Your task to perform on an android device: Clear the shopping cart on costco. Search for jbl charge 4 on costco, select the first entry, and add it to the cart. Image 0: 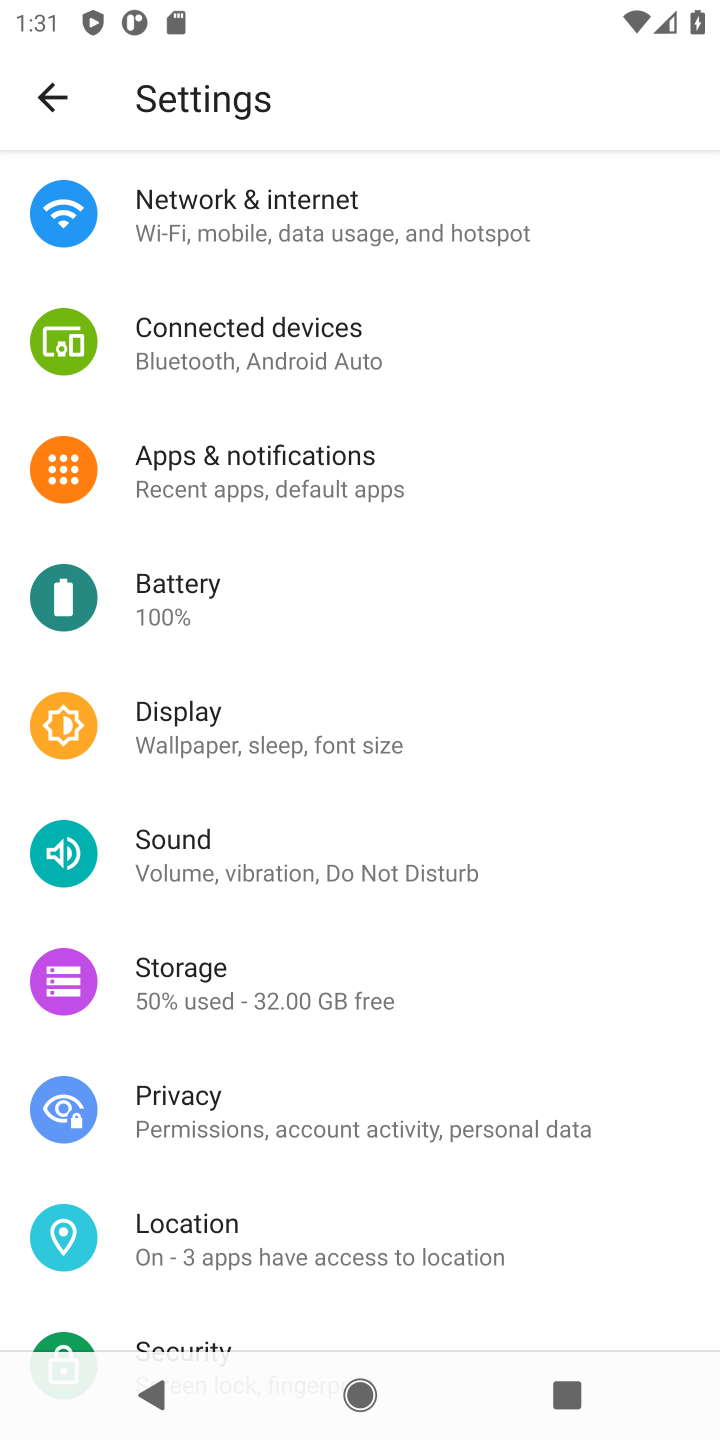
Step 0: press home button
Your task to perform on an android device: Clear the shopping cart on costco. Search for jbl charge 4 on costco, select the first entry, and add it to the cart. Image 1: 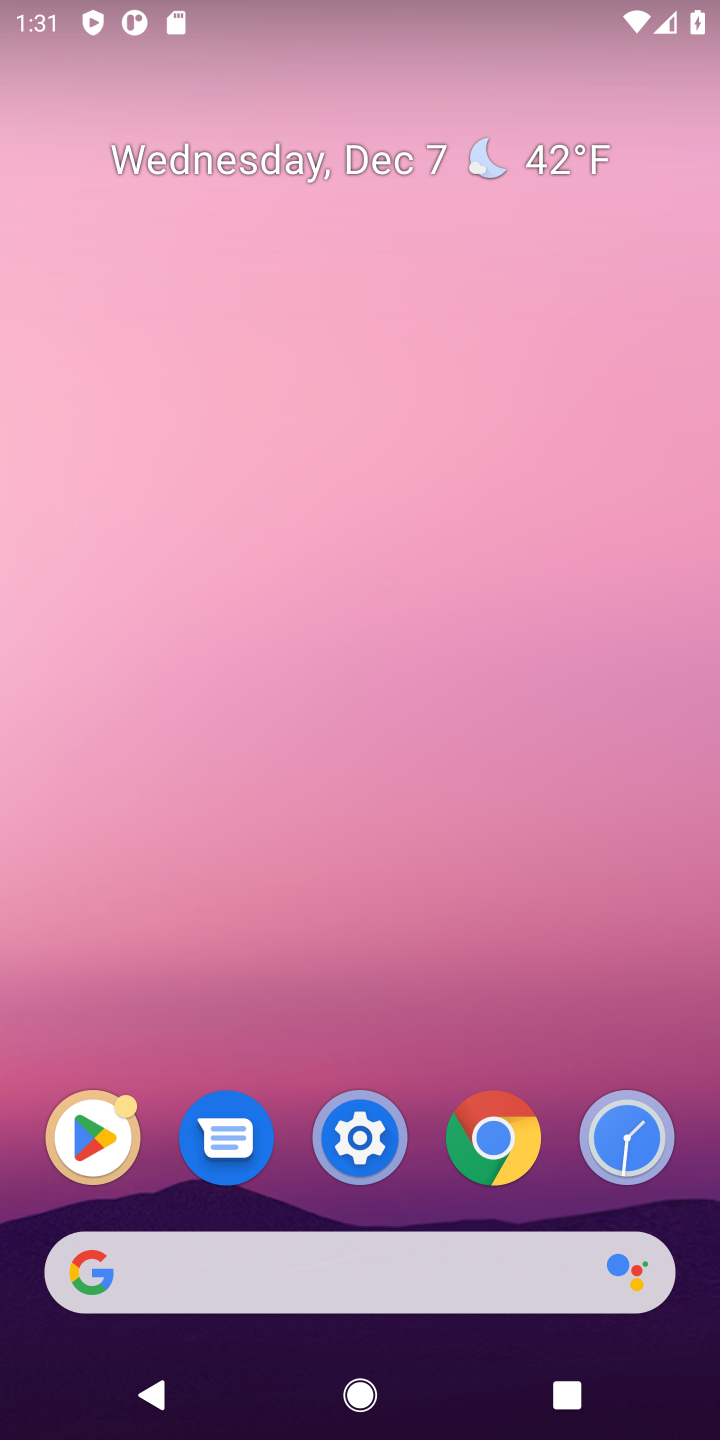
Step 1: click (425, 1267)
Your task to perform on an android device: Clear the shopping cart on costco. Search for jbl charge 4 on costco, select the first entry, and add it to the cart. Image 2: 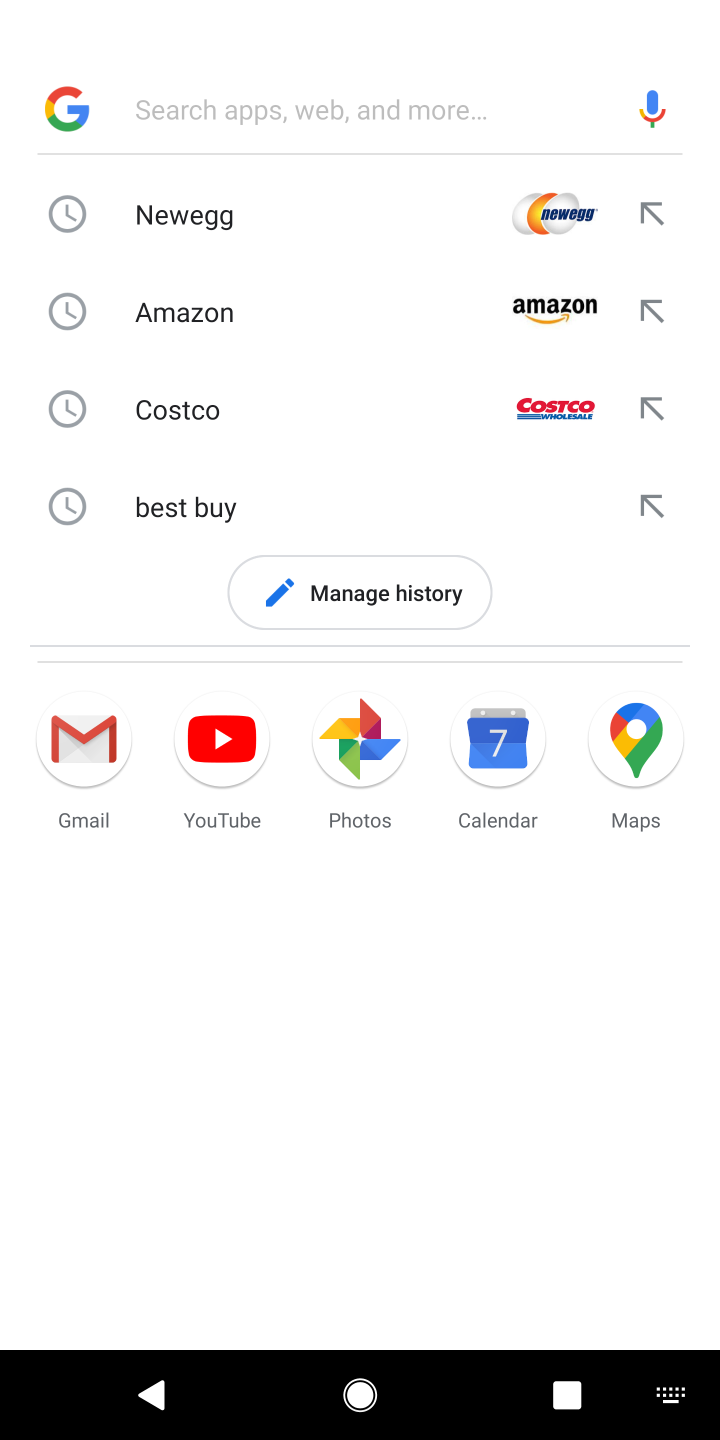
Step 2: type "cotco"
Your task to perform on an android device: Clear the shopping cart on costco. Search for jbl charge 4 on costco, select the first entry, and add it to the cart. Image 3: 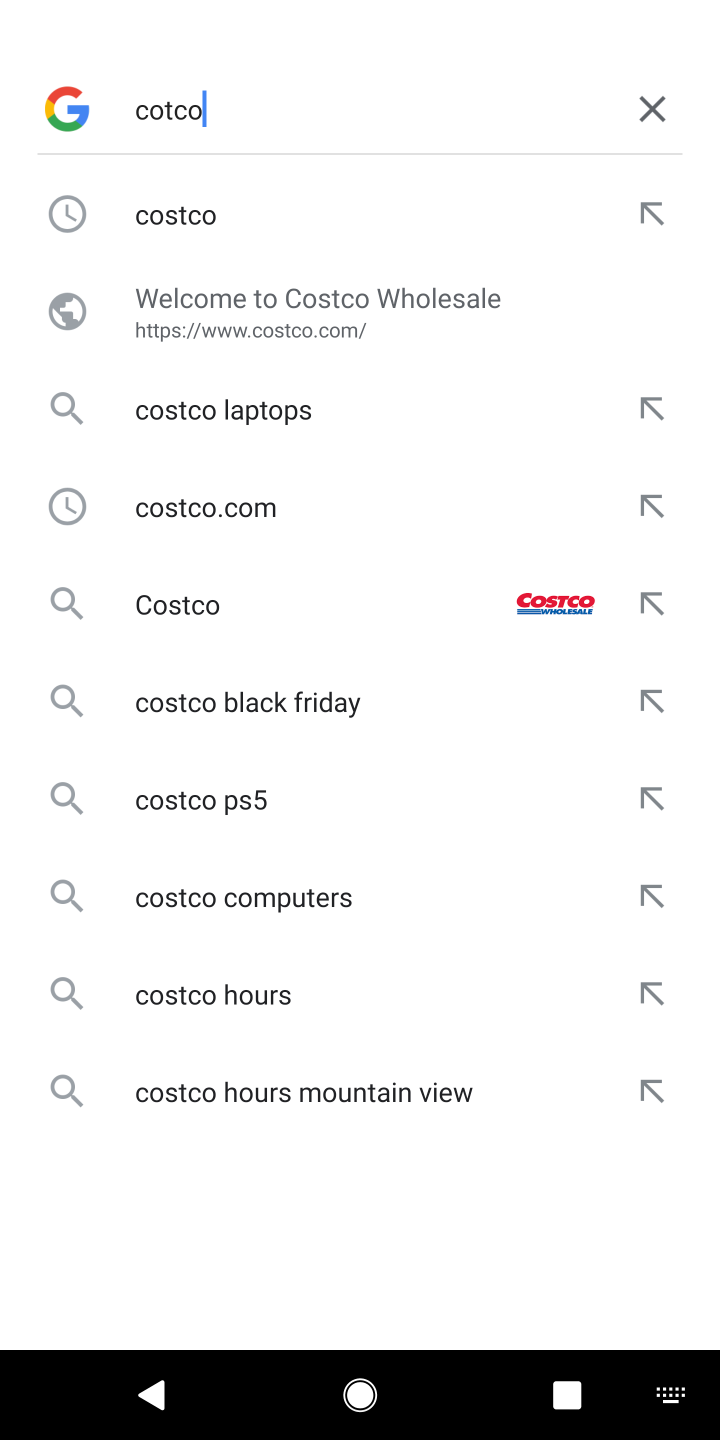
Step 3: click (184, 625)
Your task to perform on an android device: Clear the shopping cart on costco. Search for jbl charge 4 on costco, select the first entry, and add it to the cart. Image 4: 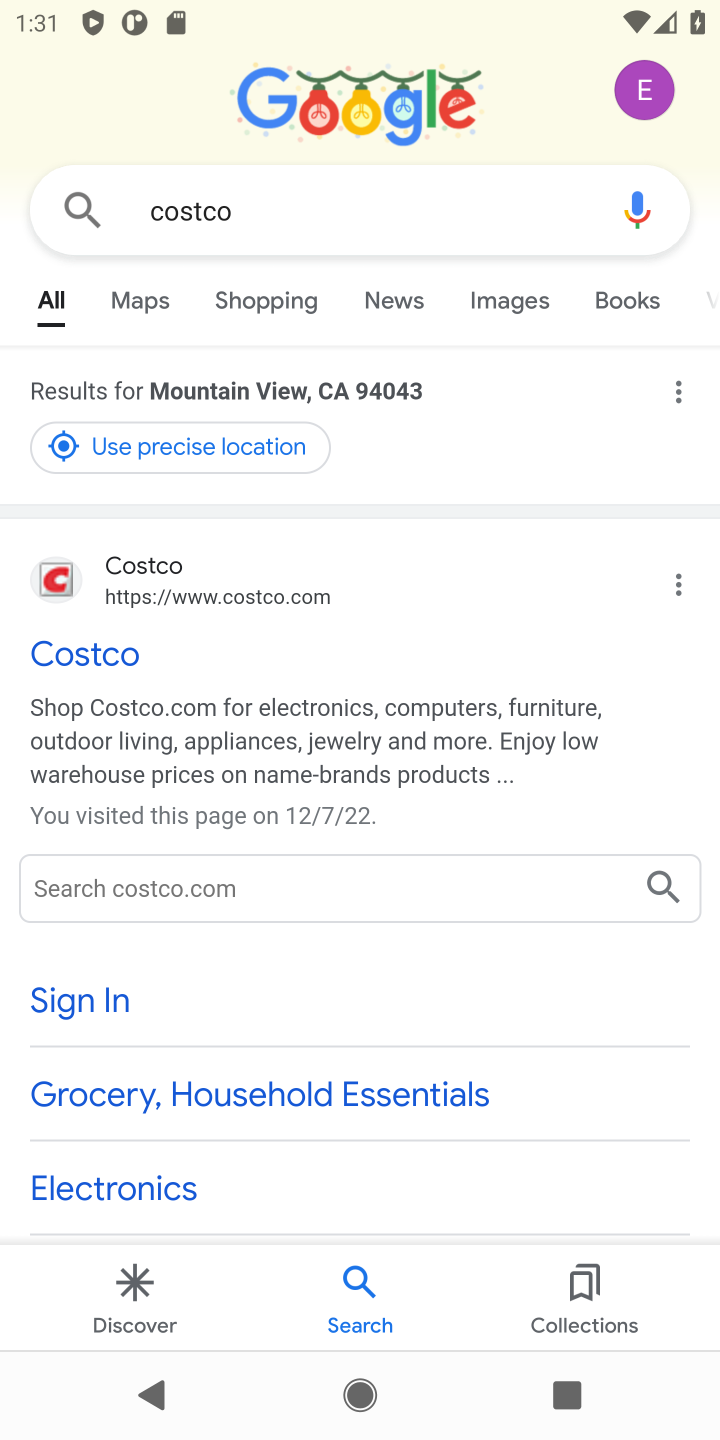
Step 4: click (53, 663)
Your task to perform on an android device: Clear the shopping cart on costco. Search for jbl charge 4 on costco, select the first entry, and add it to the cart. Image 5: 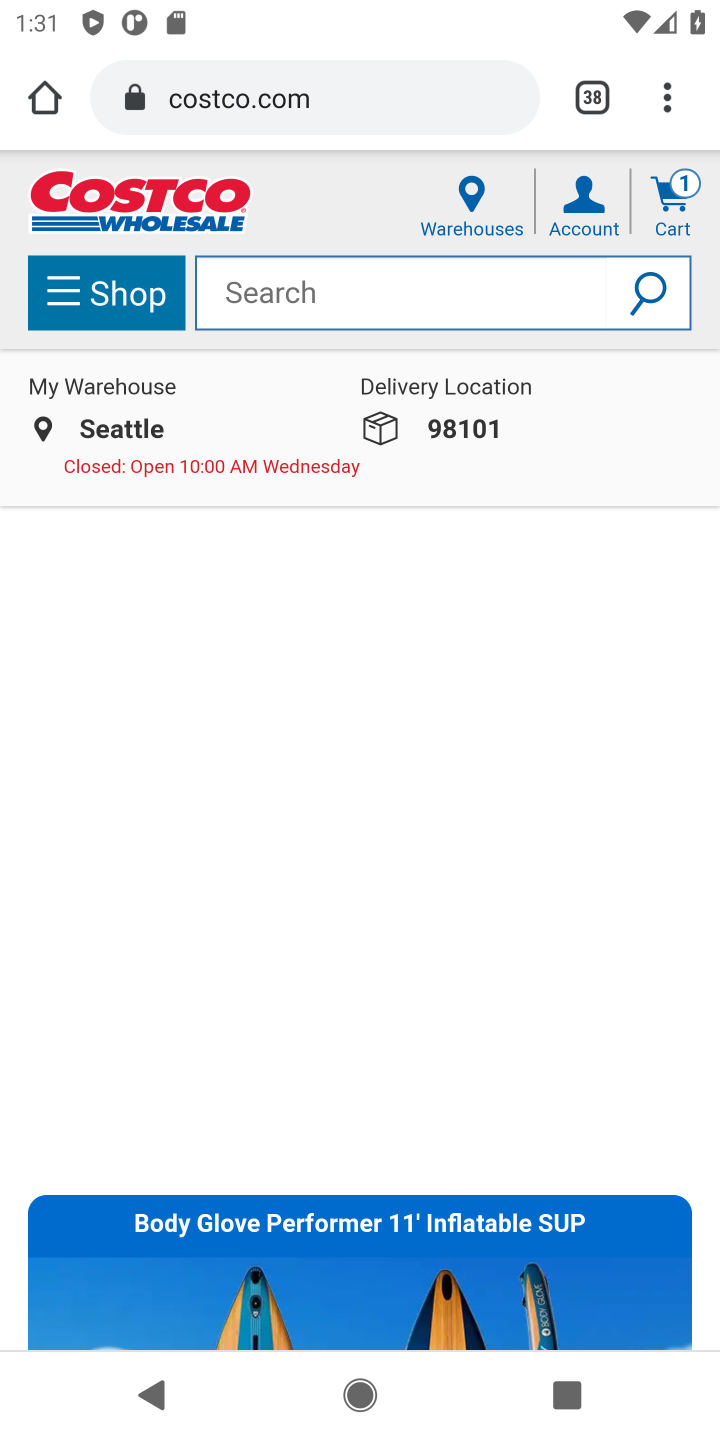
Step 5: click (346, 312)
Your task to perform on an android device: Clear the shopping cart on costco. Search for jbl charge 4 on costco, select the first entry, and add it to the cart. Image 6: 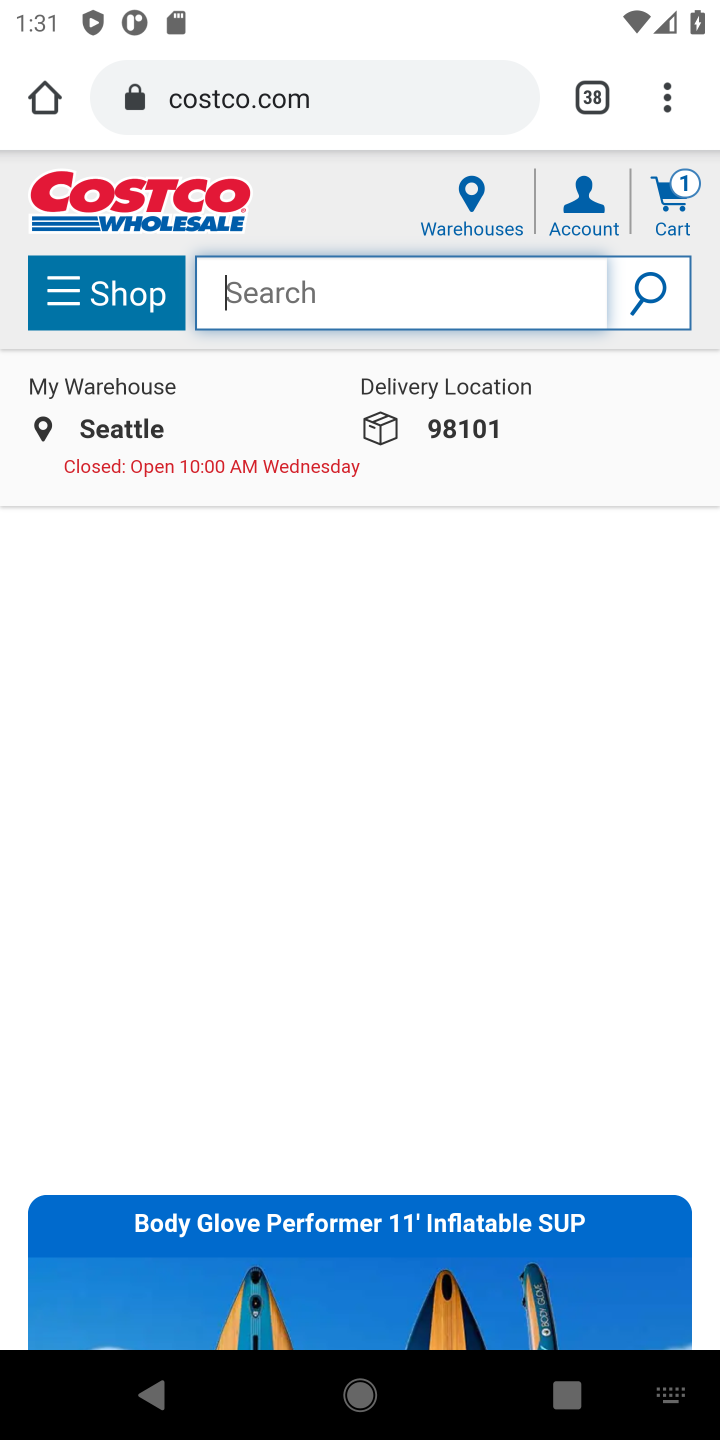
Step 6: type "jbl charge 4"
Your task to perform on an android device: Clear the shopping cart on costco. Search for jbl charge 4 on costco, select the first entry, and add it to the cart. Image 7: 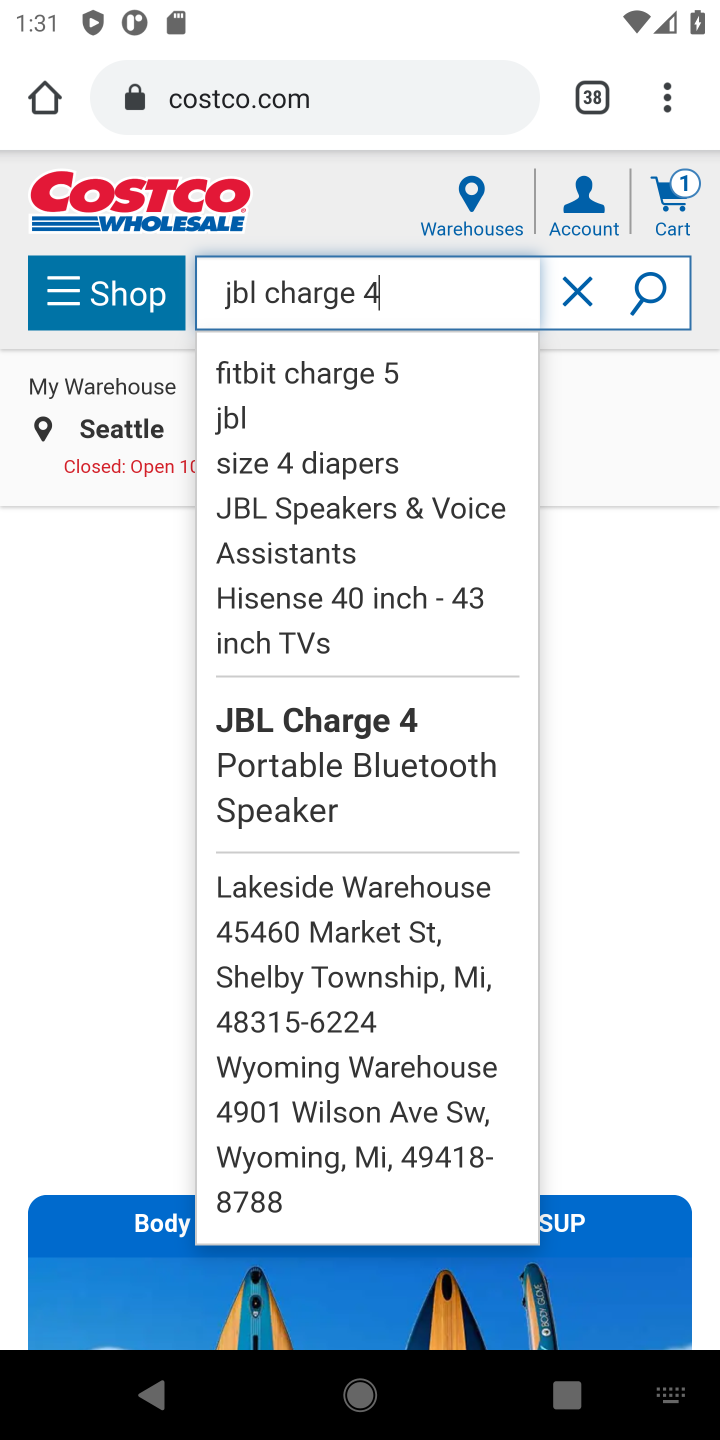
Step 7: click (662, 286)
Your task to perform on an android device: Clear the shopping cart on costco. Search for jbl charge 4 on costco, select the first entry, and add it to the cart. Image 8: 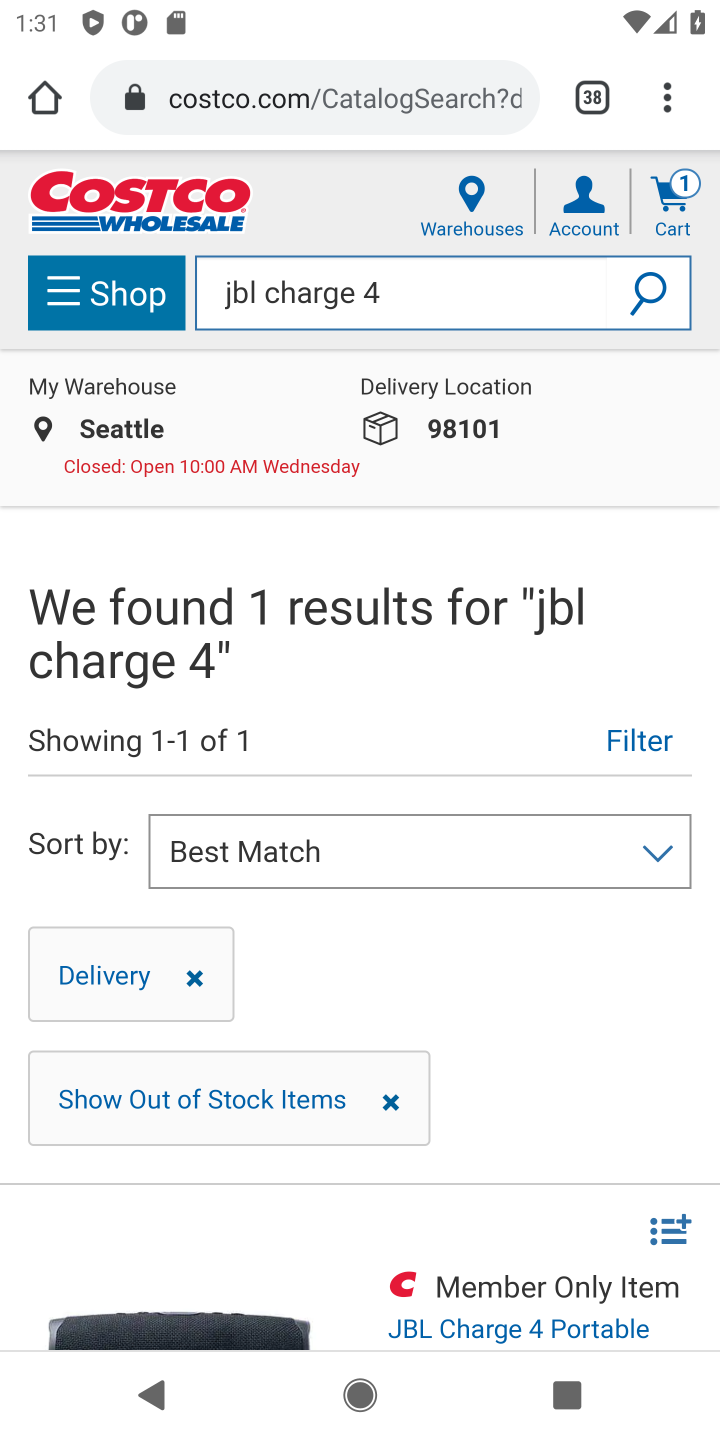
Step 8: task complete